Your task to perform on an android device: turn on priority inbox in the gmail app Image 0: 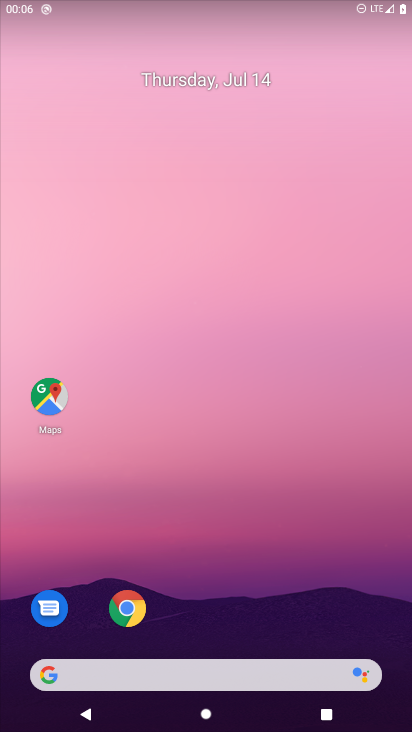
Step 0: press home button
Your task to perform on an android device: turn on priority inbox in the gmail app Image 1: 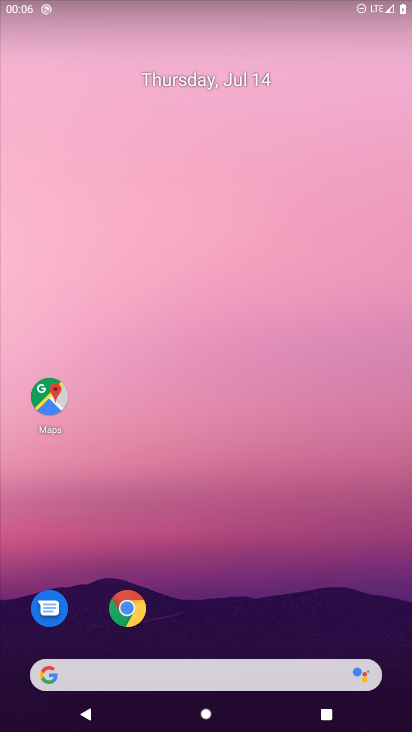
Step 1: drag from (150, 637) to (291, 0)
Your task to perform on an android device: turn on priority inbox in the gmail app Image 2: 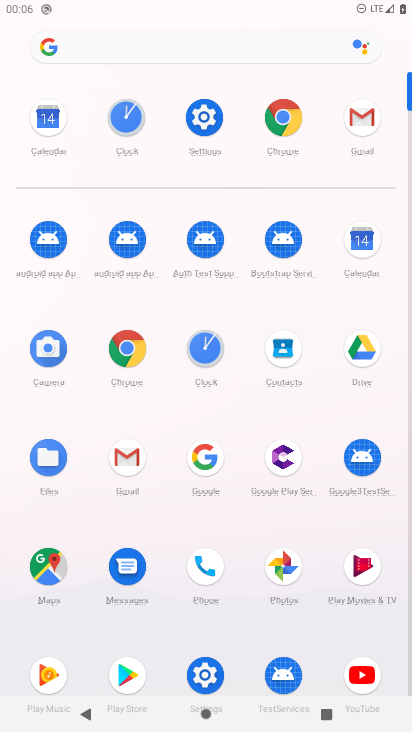
Step 2: click (133, 471)
Your task to perform on an android device: turn on priority inbox in the gmail app Image 3: 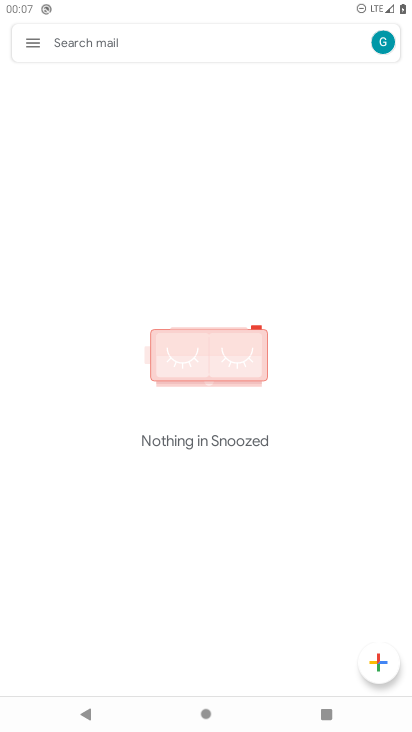
Step 3: drag from (36, 31) to (186, 450)
Your task to perform on an android device: turn on priority inbox in the gmail app Image 4: 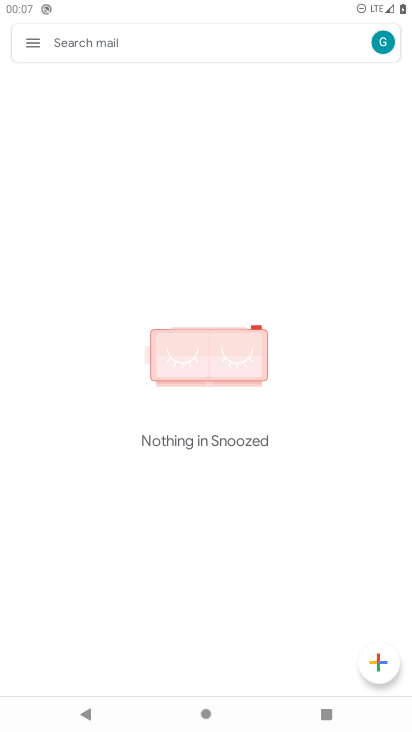
Step 4: click (30, 57)
Your task to perform on an android device: turn on priority inbox in the gmail app Image 5: 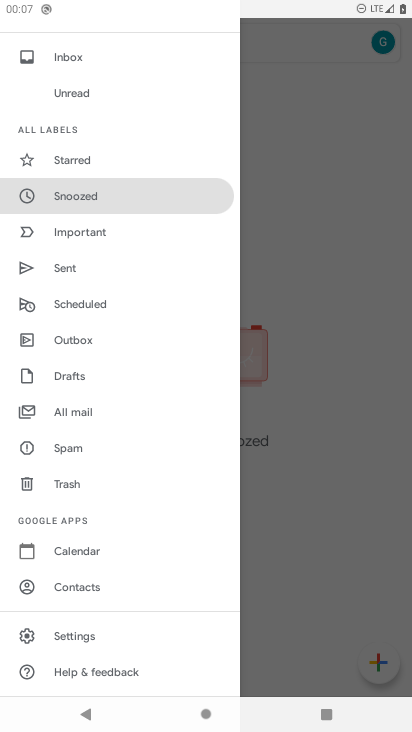
Step 5: click (56, 629)
Your task to perform on an android device: turn on priority inbox in the gmail app Image 6: 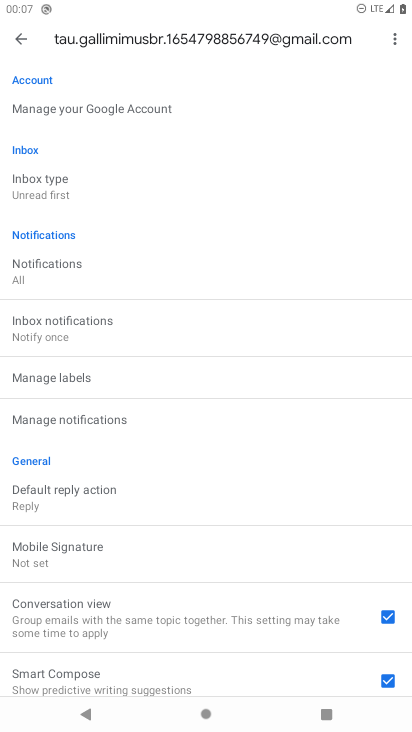
Step 6: click (84, 193)
Your task to perform on an android device: turn on priority inbox in the gmail app Image 7: 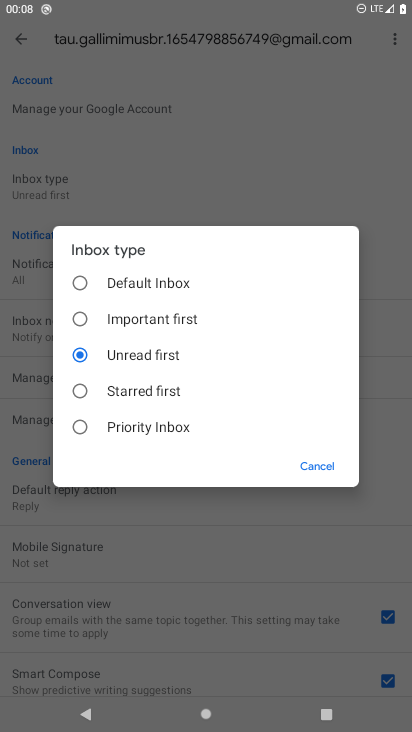
Step 7: click (86, 421)
Your task to perform on an android device: turn on priority inbox in the gmail app Image 8: 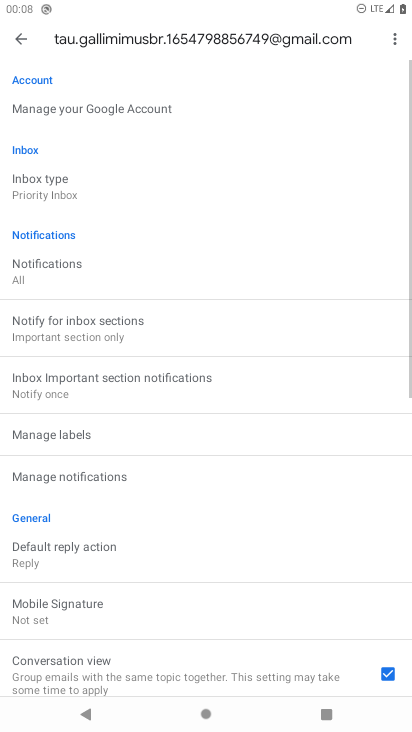
Step 8: task complete